Your task to perform on an android device: delete the emails in spam in the gmail app Image 0: 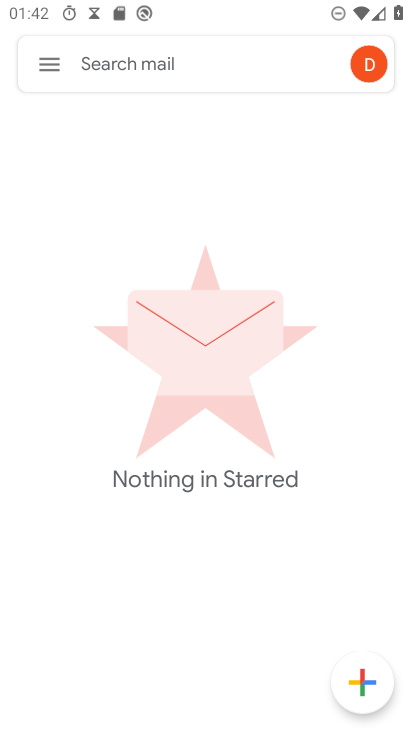
Step 0: press home button
Your task to perform on an android device: delete the emails in spam in the gmail app Image 1: 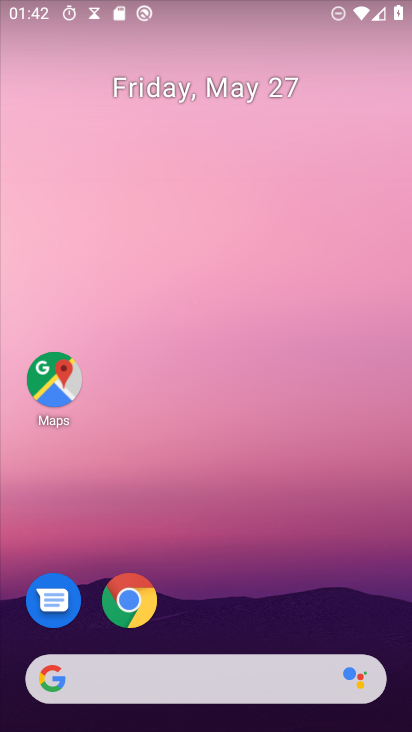
Step 1: click (296, 582)
Your task to perform on an android device: delete the emails in spam in the gmail app Image 2: 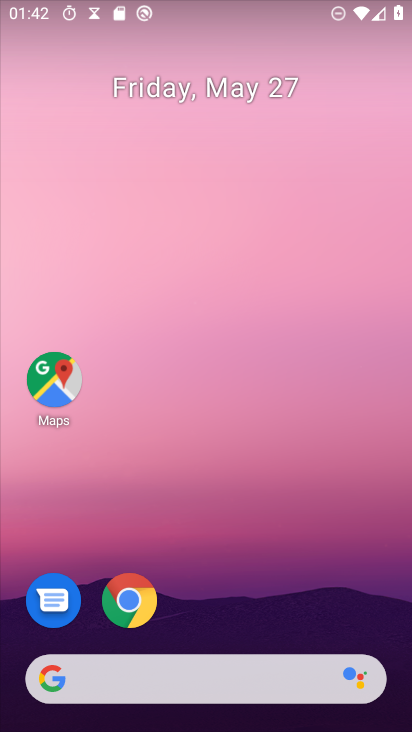
Step 2: drag from (239, 420) to (241, 9)
Your task to perform on an android device: delete the emails in spam in the gmail app Image 3: 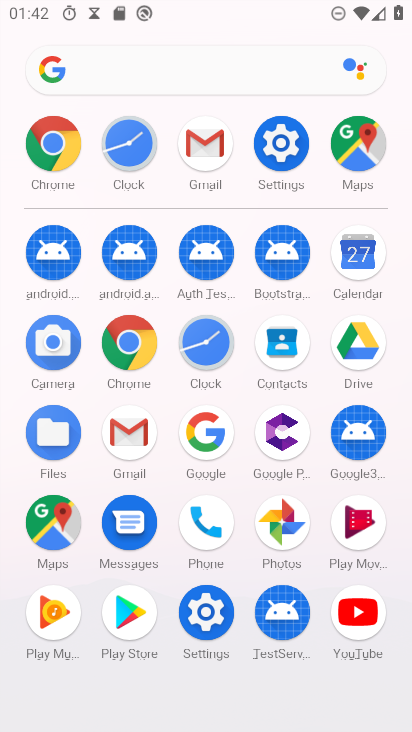
Step 3: click (208, 162)
Your task to perform on an android device: delete the emails in spam in the gmail app Image 4: 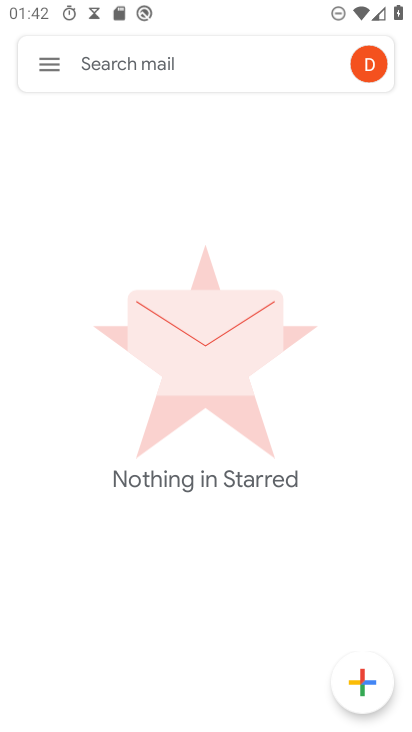
Step 4: click (44, 60)
Your task to perform on an android device: delete the emails in spam in the gmail app Image 5: 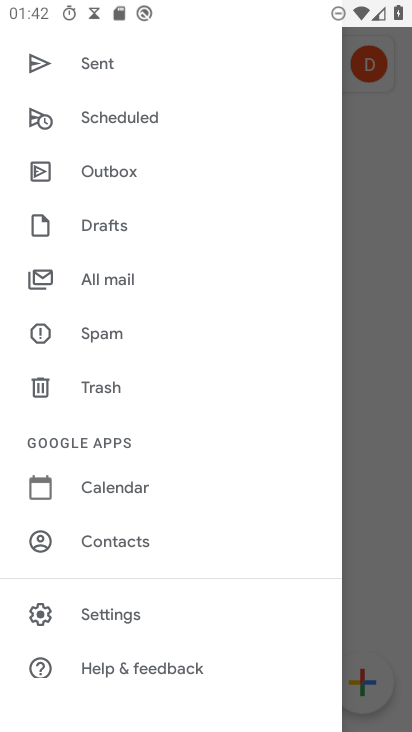
Step 5: click (131, 268)
Your task to perform on an android device: delete the emails in spam in the gmail app Image 6: 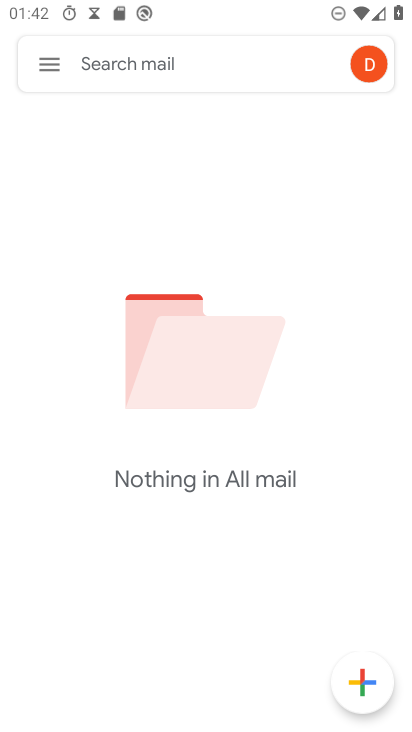
Step 6: click (47, 64)
Your task to perform on an android device: delete the emails in spam in the gmail app Image 7: 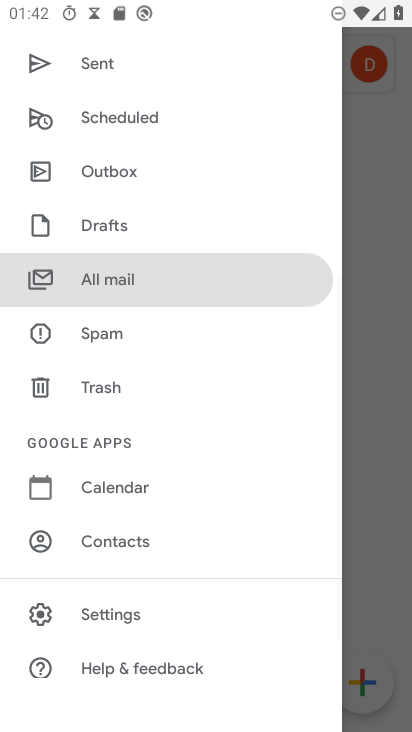
Step 7: click (138, 327)
Your task to perform on an android device: delete the emails in spam in the gmail app Image 8: 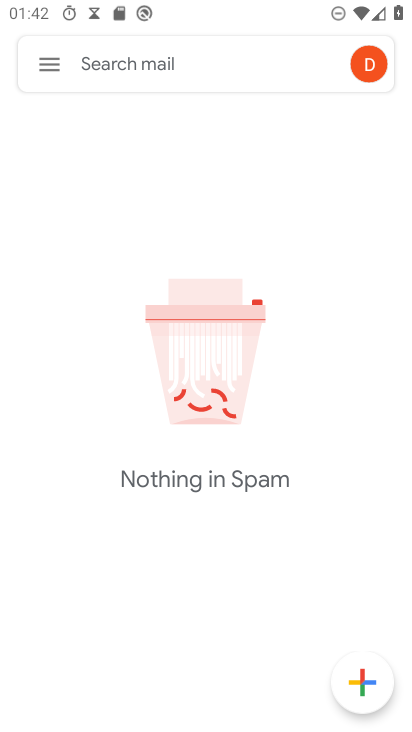
Step 8: task complete